Your task to perform on an android device: Open notification settings Image 0: 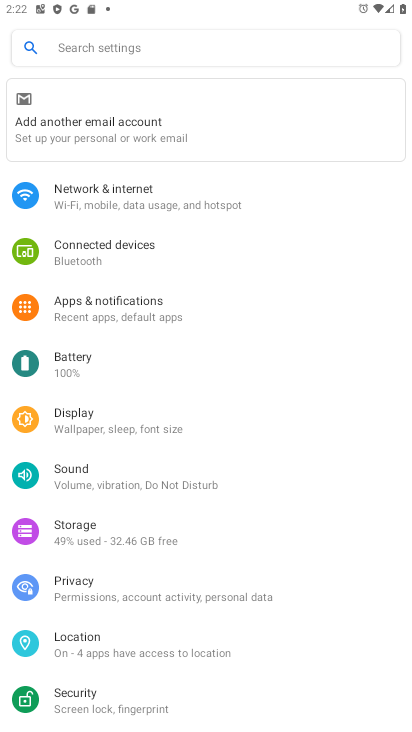
Step 0: click (152, 308)
Your task to perform on an android device: Open notification settings Image 1: 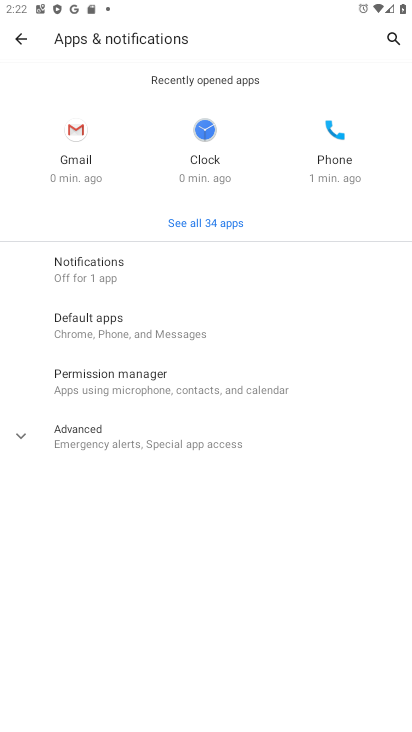
Step 1: click (113, 282)
Your task to perform on an android device: Open notification settings Image 2: 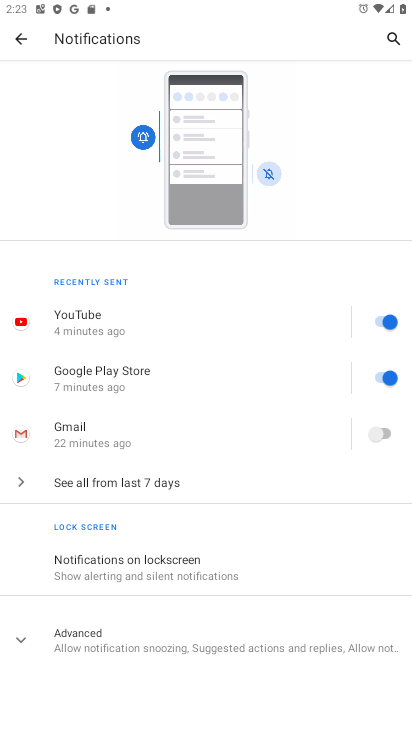
Step 2: task complete